Your task to perform on an android device: turn off data saver in the chrome app Image 0: 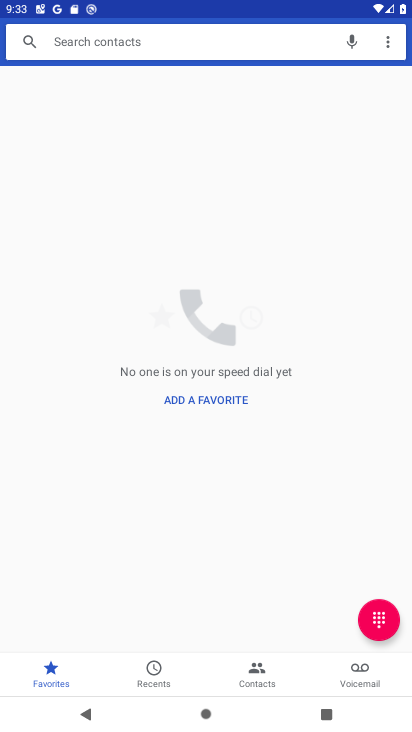
Step 0: press home button
Your task to perform on an android device: turn off data saver in the chrome app Image 1: 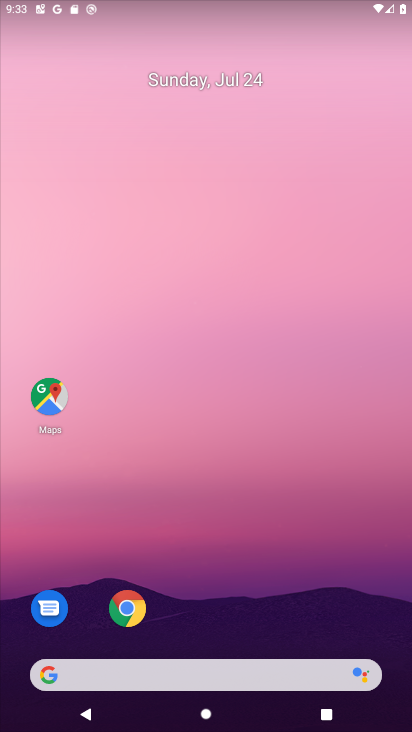
Step 1: click (120, 607)
Your task to perform on an android device: turn off data saver in the chrome app Image 2: 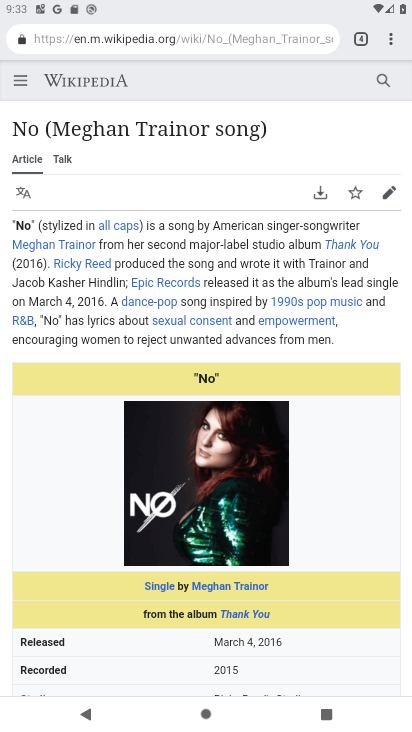
Step 2: click (382, 32)
Your task to perform on an android device: turn off data saver in the chrome app Image 3: 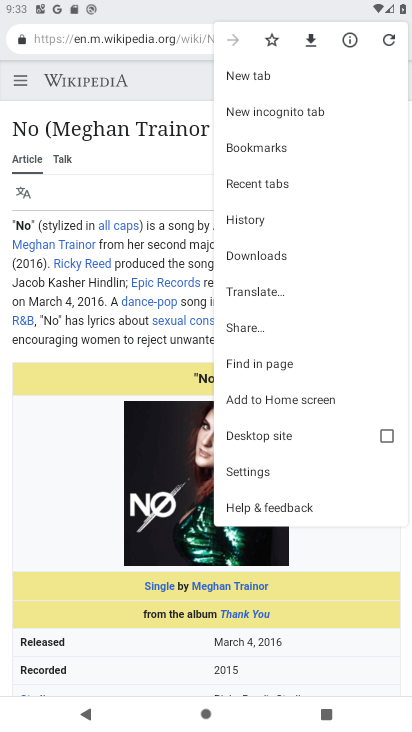
Step 3: click (266, 472)
Your task to perform on an android device: turn off data saver in the chrome app Image 4: 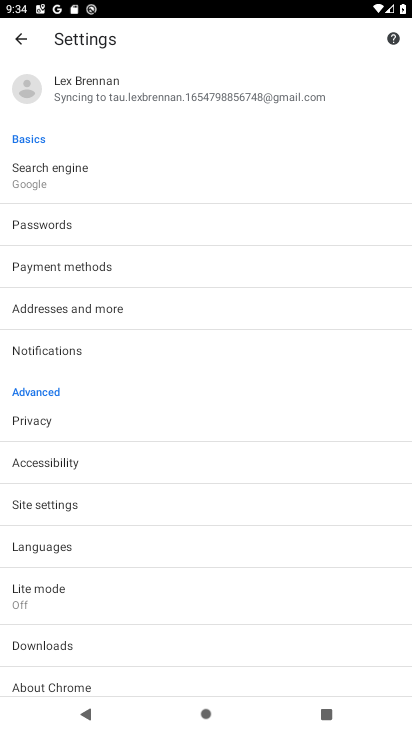
Step 4: click (97, 615)
Your task to perform on an android device: turn off data saver in the chrome app Image 5: 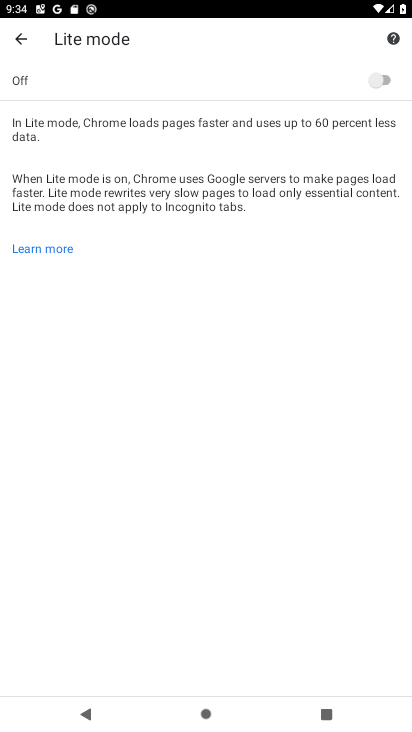
Step 5: task complete